Your task to perform on an android device: Go to Google Image 0: 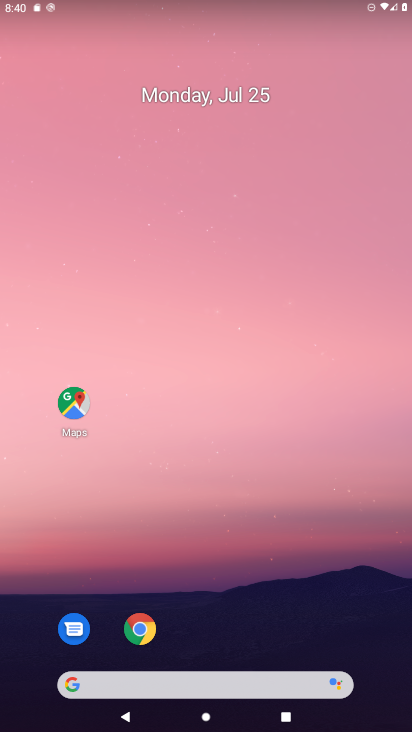
Step 0: drag from (232, 652) to (272, 53)
Your task to perform on an android device: Go to Google Image 1: 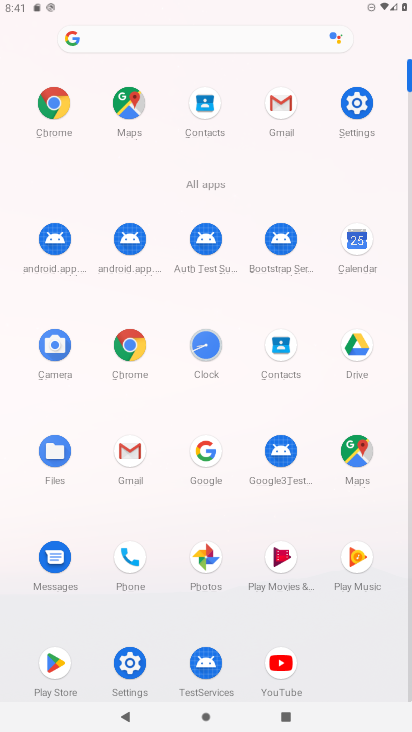
Step 1: click (199, 460)
Your task to perform on an android device: Go to Google Image 2: 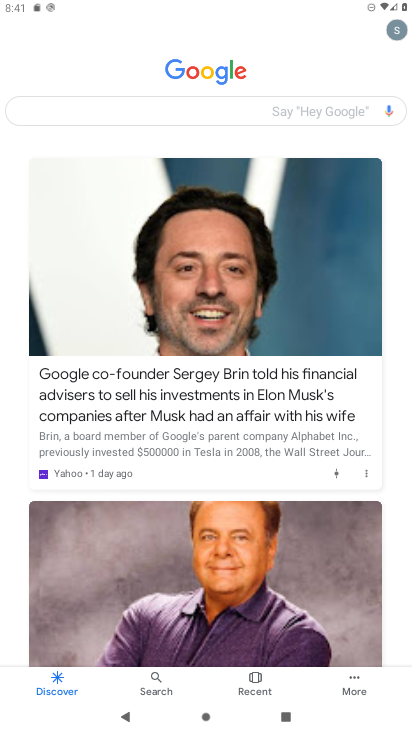
Step 2: task complete